Your task to perform on an android device: Do I have any events tomorrow? Image 0: 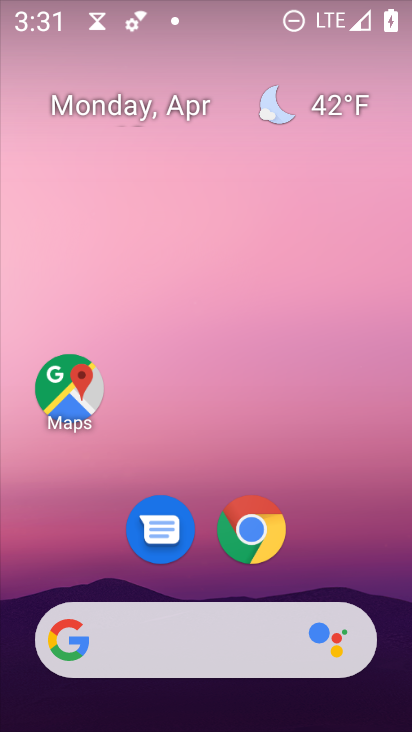
Step 0: click (68, 393)
Your task to perform on an android device: Do I have any events tomorrow? Image 1: 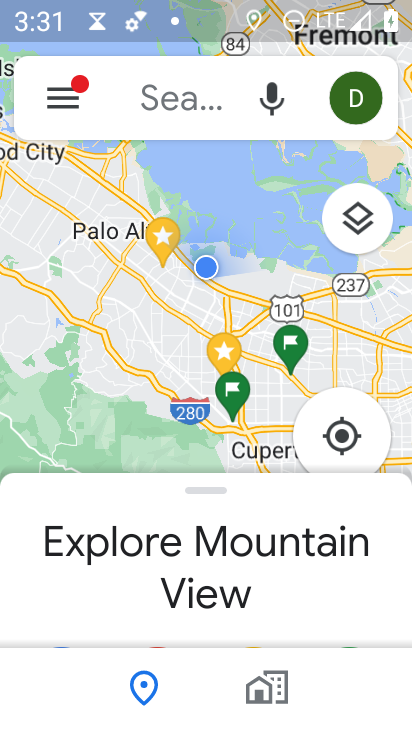
Step 1: press home button
Your task to perform on an android device: Do I have any events tomorrow? Image 2: 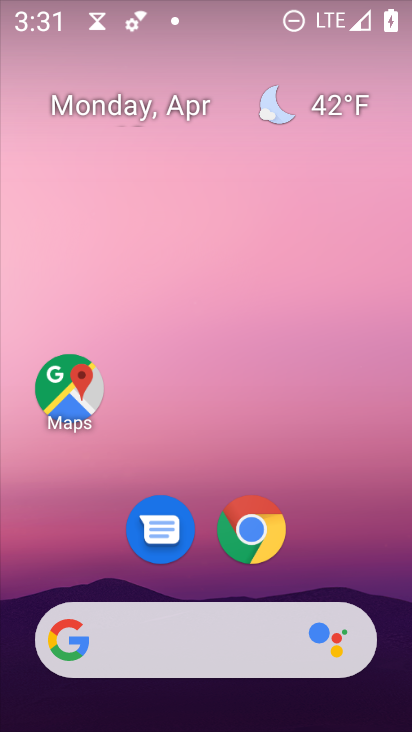
Step 2: drag from (214, 564) to (299, 147)
Your task to perform on an android device: Do I have any events tomorrow? Image 3: 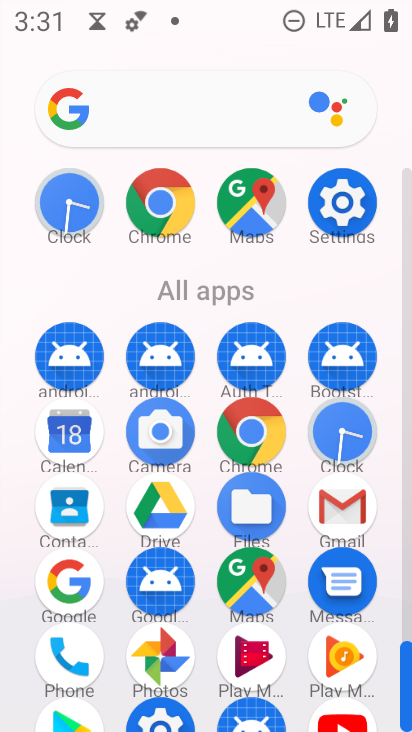
Step 3: click (64, 427)
Your task to perform on an android device: Do I have any events tomorrow? Image 4: 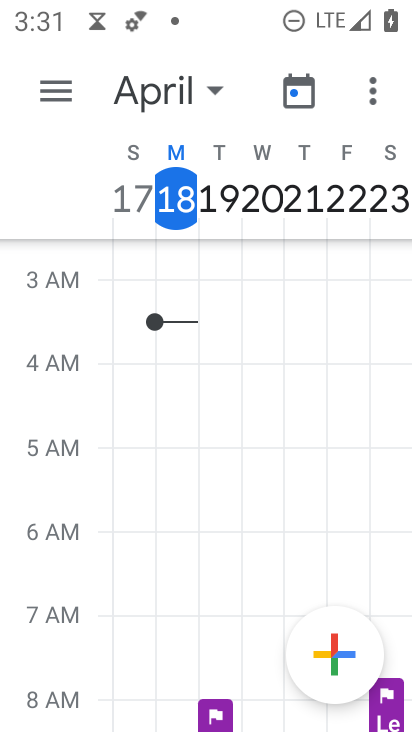
Step 4: click (63, 98)
Your task to perform on an android device: Do I have any events tomorrow? Image 5: 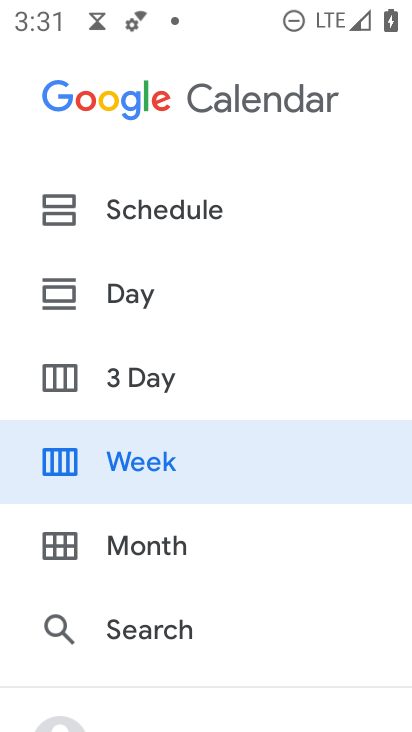
Step 5: click (137, 373)
Your task to perform on an android device: Do I have any events tomorrow? Image 6: 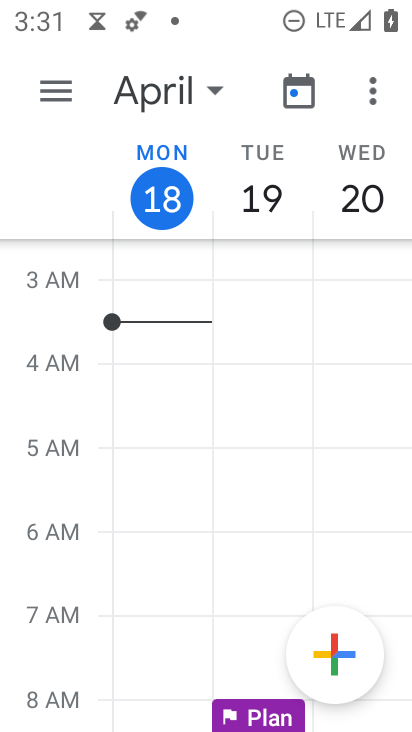
Step 6: click (45, 86)
Your task to perform on an android device: Do I have any events tomorrow? Image 7: 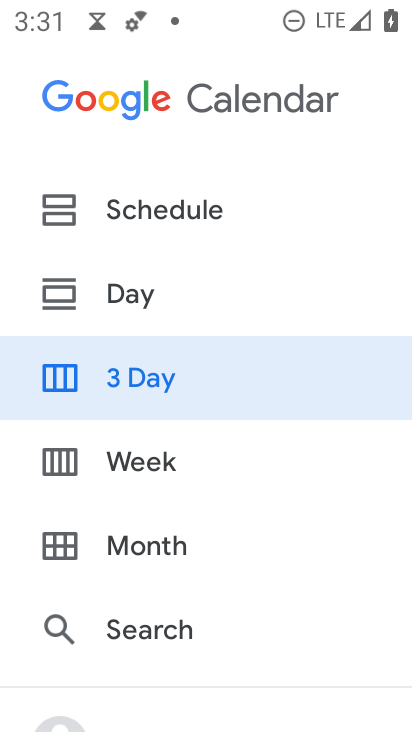
Step 7: drag from (71, 551) to (141, 134)
Your task to perform on an android device: Do I have any events tomorrow? Image 8: 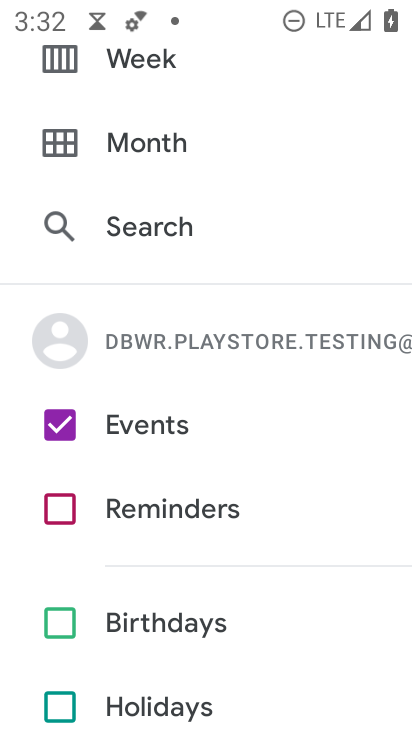
Step 8: drag from (69, 514) to (98, 294)
Your task to perform on an android device: Do I have any events tomorrow? Image 9: 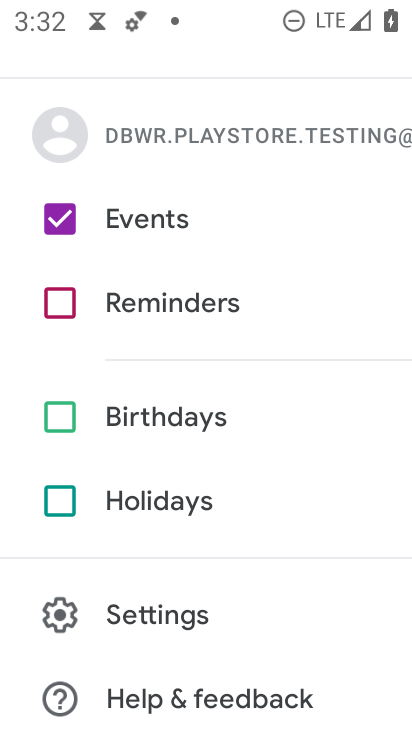
Step 9: click (147, 713)
Your task to perform on an android device: Do I have any events tomorrow? Image 10: 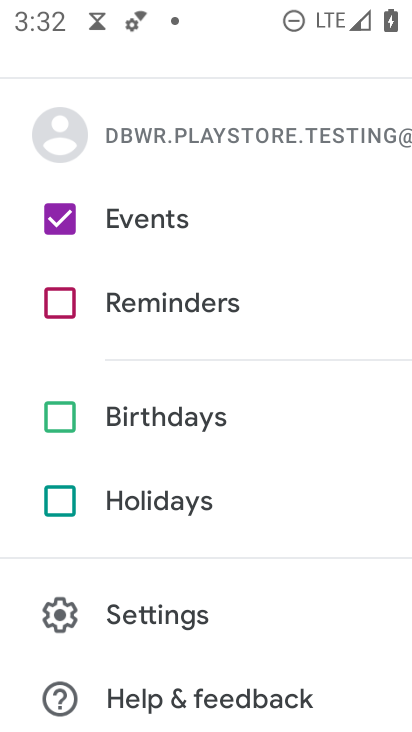
Step 10: task complete